Your task to perform on an android device: Open Google Chrome and click the shortcut for Amazon.com Image 0: 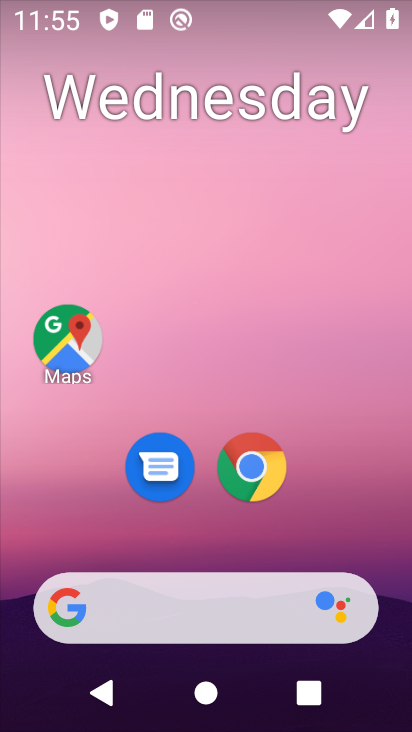
Step 0: click (280, 477)
Your task to perform on an android device: Open Google Chrome and click the shortcut for Amazon.com Image 1: 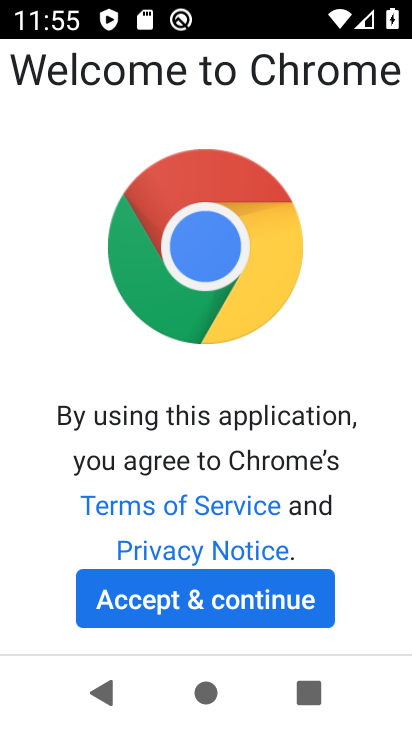
Step 1: click (258, 593)
Your task to perform on an android device: Open Google Chrome and click the shortcut for Amazon.com Image 2: 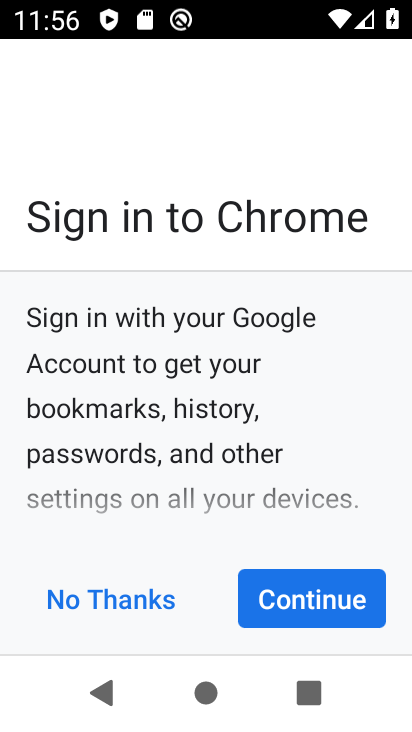
Step 2: click (299, 581)
Your task to perform on an android device: Open Google Chrome and click the shortcut for Amazon.com Image 3: 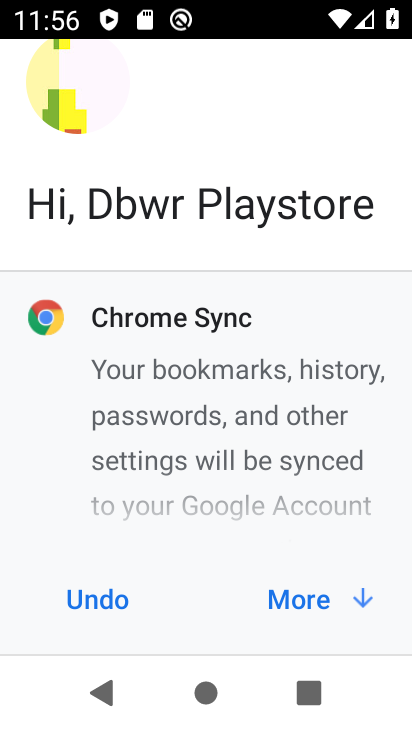
Step 3: click (302, 598)
Your task to perform on an android device: Open Google Chrome and click the shortcut for Amazon.com Image 4: 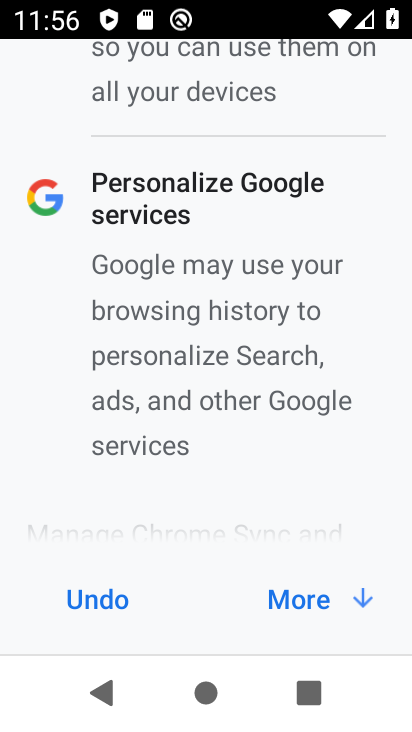
Step 4: click (302, 598)
Your task to perform on an android device: Open Google Chrome and click the shortcut for Amazon.com Image 5: 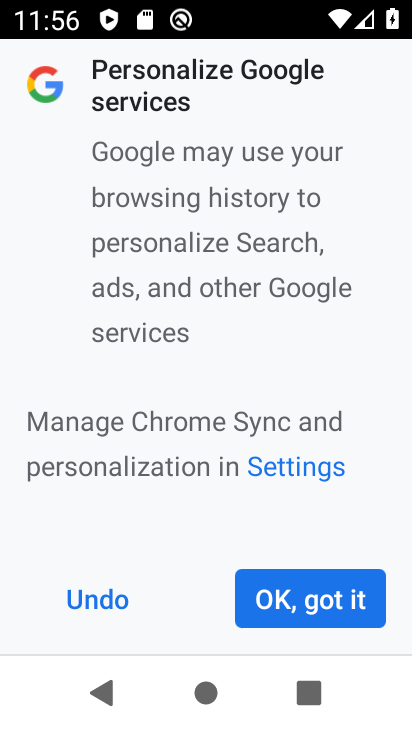
Step 5: click (302, 598)
Your task to perform on an android device: Open Google Chrome and click the shortcut for Amazon.com Image 6: 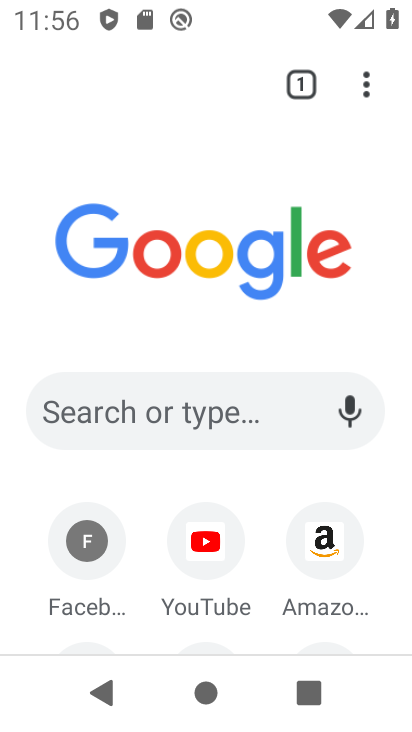
Step 6: click (342, 536)
Your task to perform on an android device: Open Google Chrome and click the shortcut for Amazon.com Image 7: 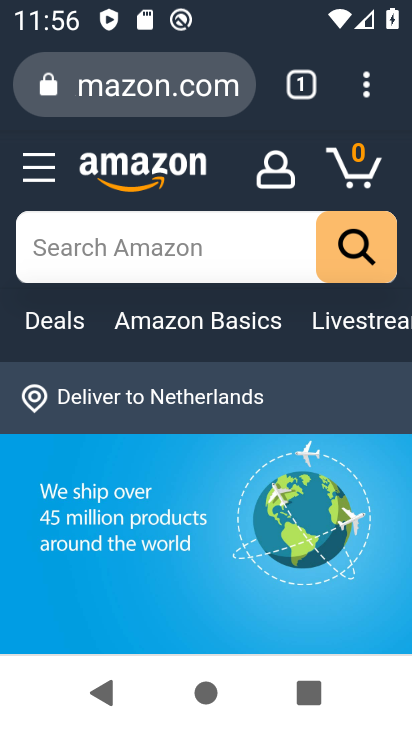
Step 7: task complete